Your task to perform on an android device: refresh tabs in the chrome app Image 0: 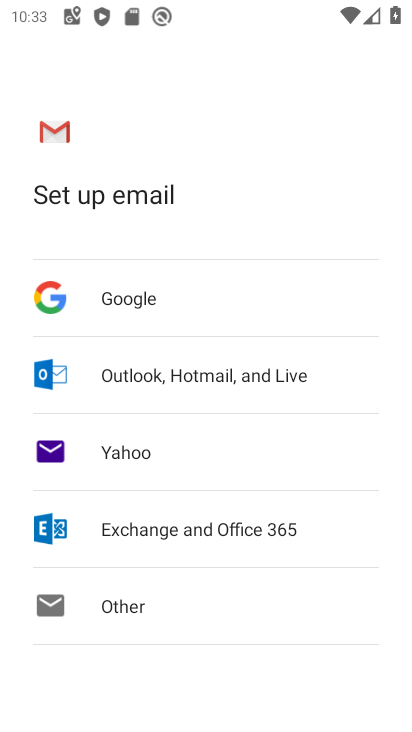
Step 0: press home button
Your task to perform on an android device: refresh tabs in the chrome app Image 1: 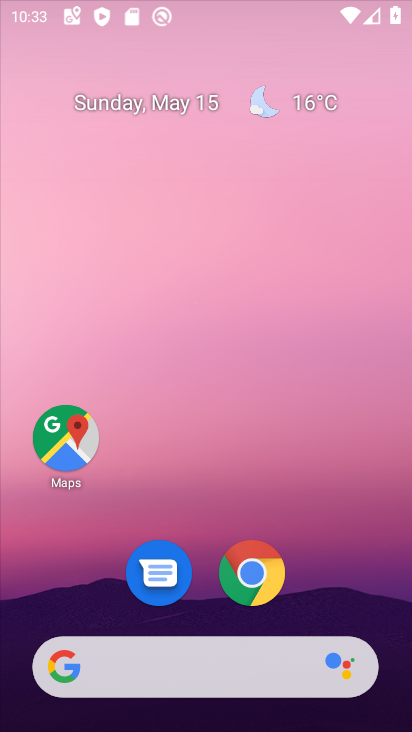
Step 1: drag from (312, 576) to (387, 131)
Your task to perform on an android device: refresh tabs in the chrome app Image 2: 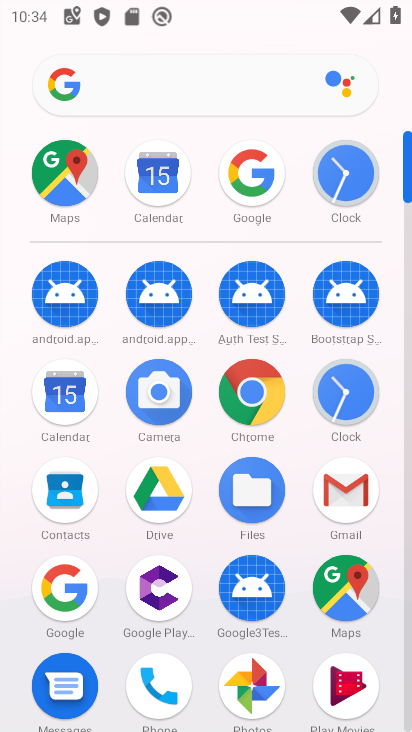
Step 2: click (251, 396)
Your task to perform on an android device: refresh tabs in the chrome app Image 3: 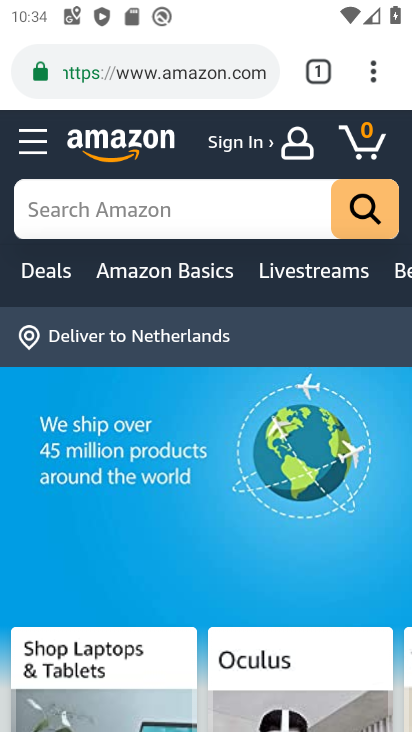
Step 3: click (375, 70)
Your task to perform on an android device: refresh tabs in the chrome app Image 4: 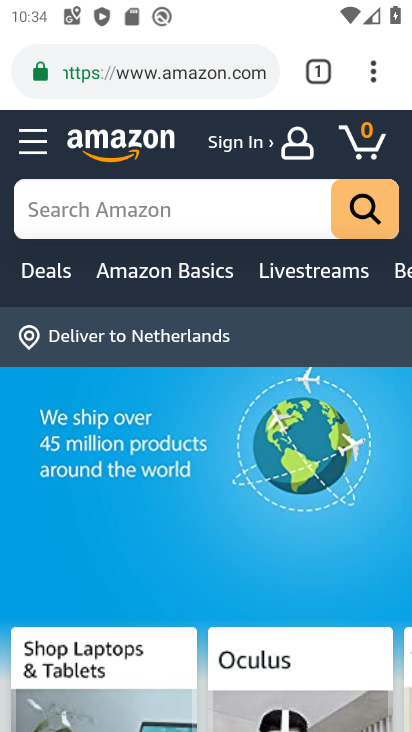
Step 4: task complete